Your task to perform on an android device: Go to Google maps Image 0: 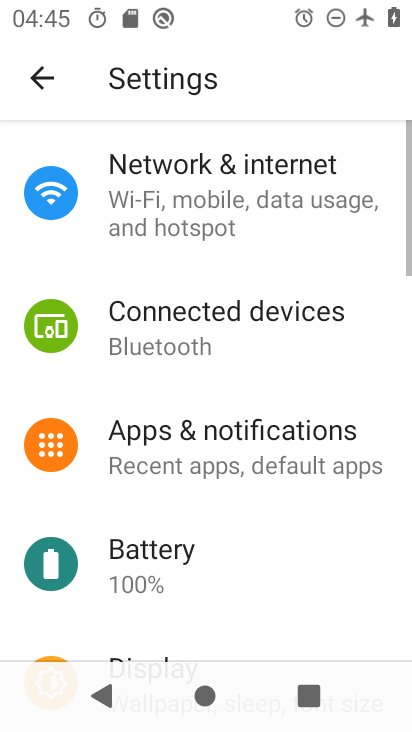
Step 0: press back button
Your task to perform on an android device: Go to Google maps Image 1: 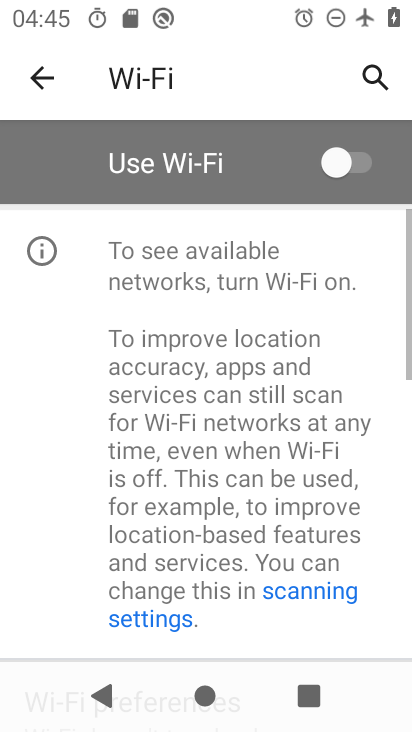
Step 1: press back button
Your task to perform on an android device: Go to Google maps Image 2: 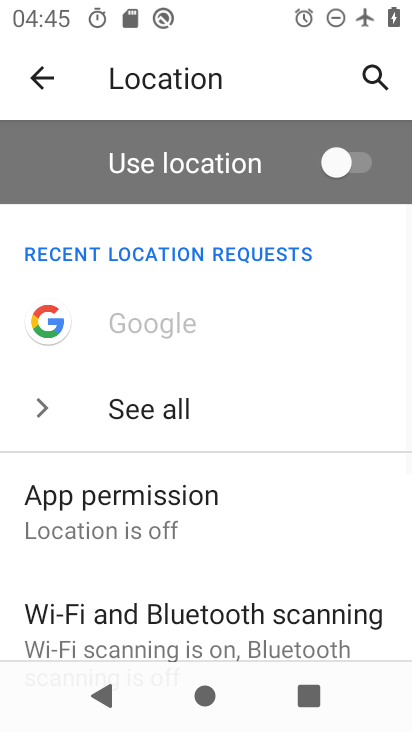
Step 2: press back button
Your task to perform on an android device: Go to Google maps Image 3: 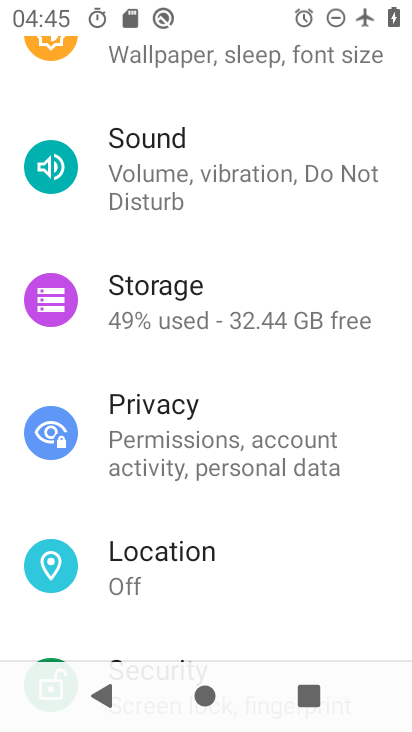
Step 3: press back button
Your task to perform on an android device: Go to Google maps Image 4: 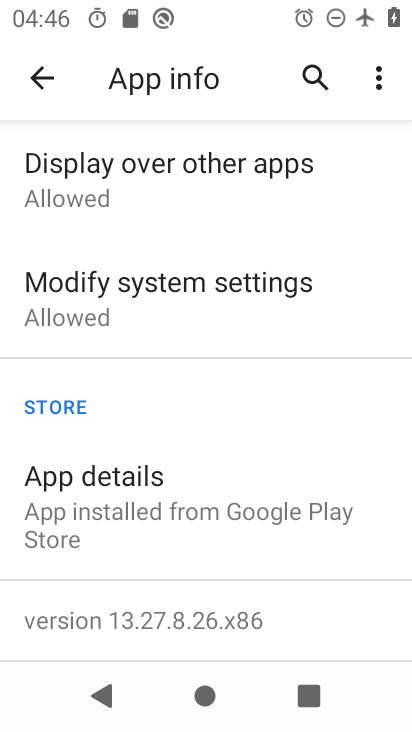
Step 4: press back button
Your task to perform on an android device: Go to Google maps Image 5: 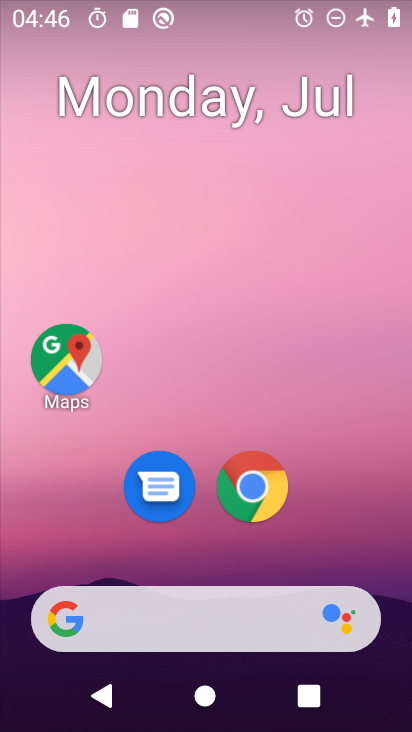
Step 5: click (57, 373)
Your task to perform on an android device: Go to Google maps Image 6: 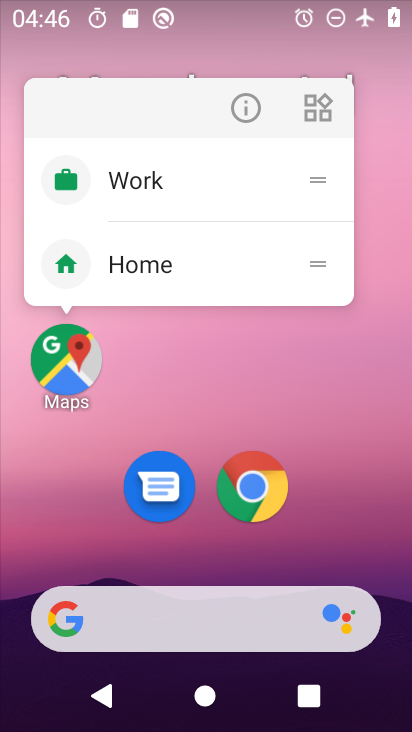
Step 6: click (64, 361)
Your task to perform on an android device: Go to Google maps Image 7: 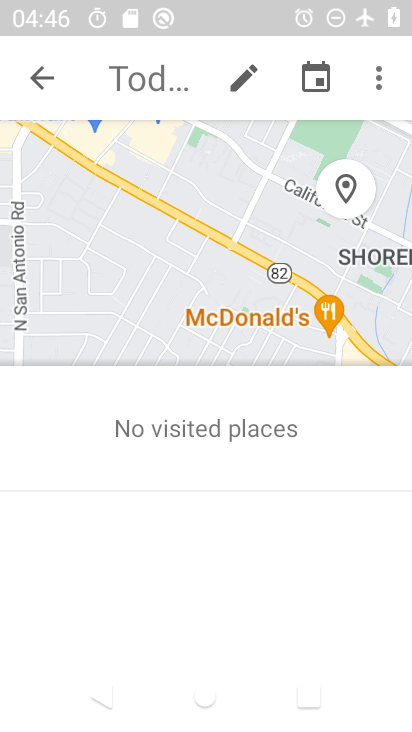
Step 7: task complete